Your task to perform on an android device: Show me recent news Image 0: 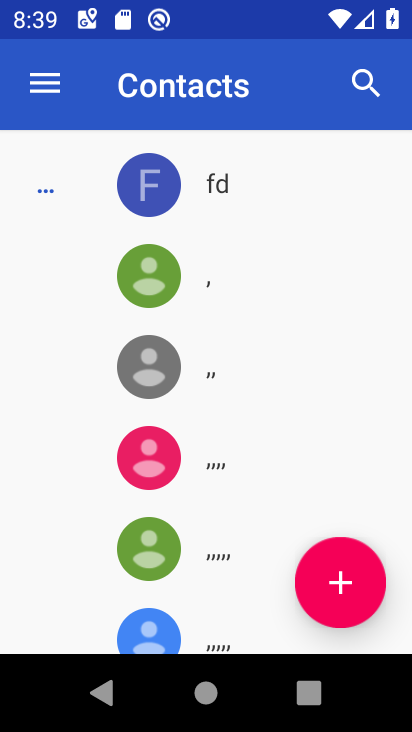
Step 0: press home button
Your task to perform on an android device: Show me recent news Image 1: 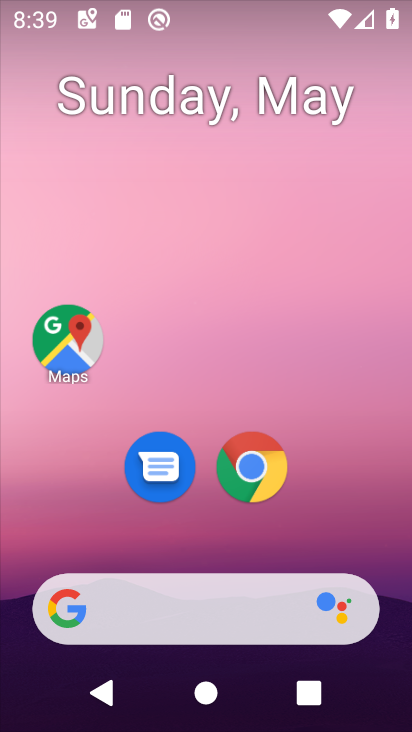
Step 1: drag from (363, 513) to (338, 125)
Your task to perform on an android device: Show me recent news Image 2: 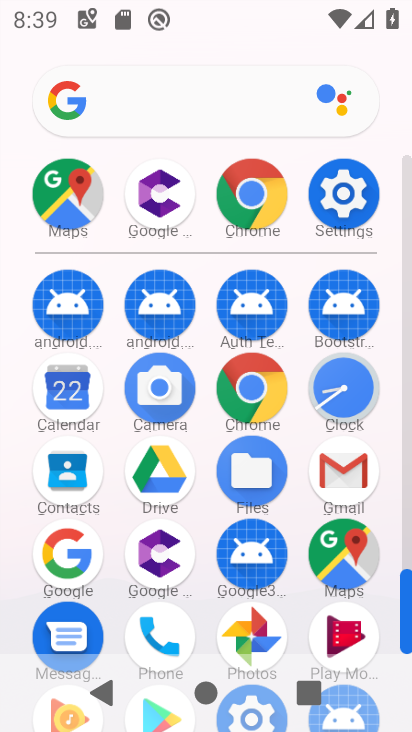
Step 2: click (254, 394)
Your task to perform on an android device: Show me recent news Image 3: 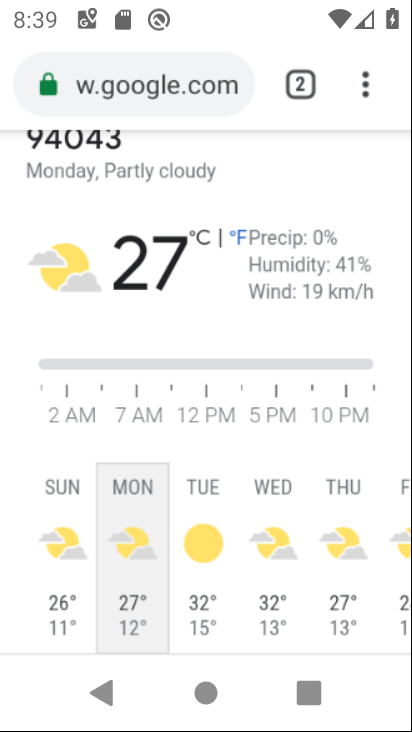
Step 3: click (188, 93)
Your task to perform on an android device: Show me recent news Image 4: 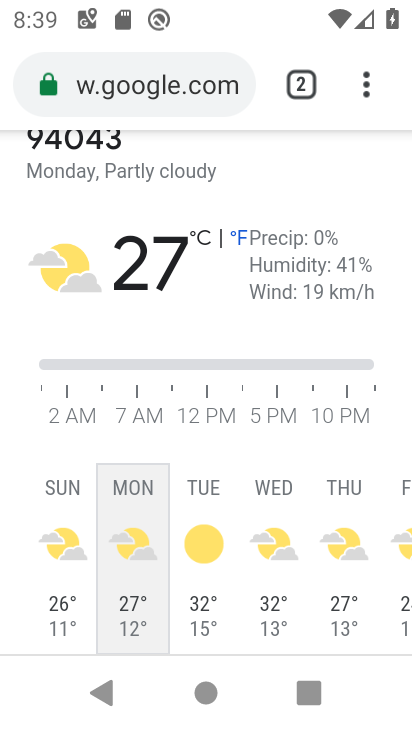
Step 4: click (189, 88)
Your task to perform on an android device: Show me recent news Image 5: 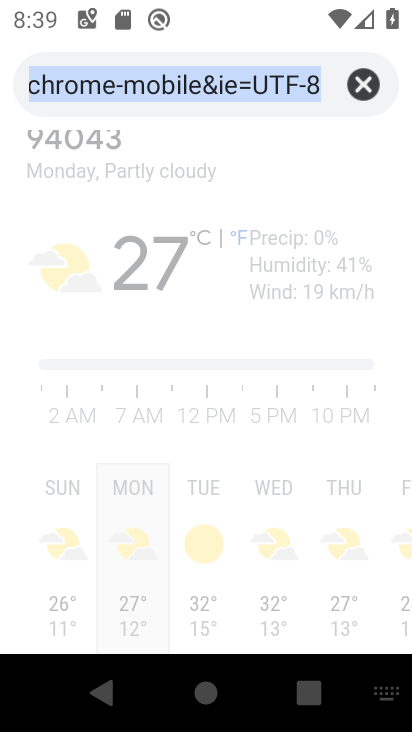
Step 5: click (356, 89)
Your task to perform on an android device: Show me recent news Image 6: 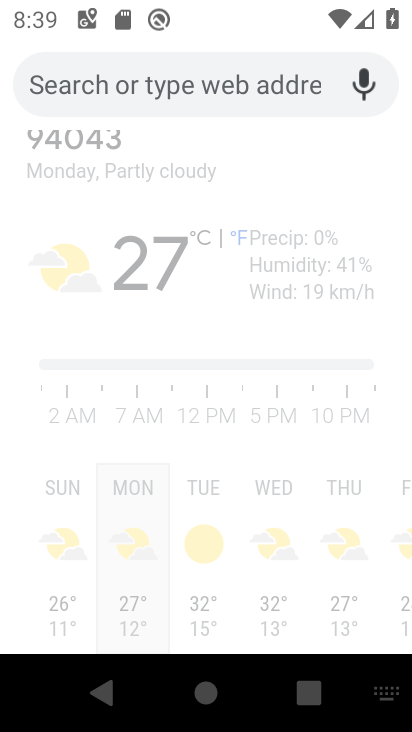
Step 6: click (273, 99)
Your task to perform on an android device: Show me recent news Image 7: 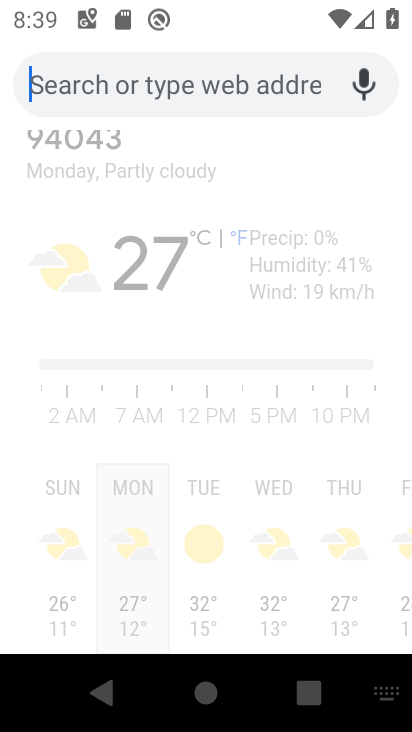
Step 7: type "recent news"
Your task to perform on an android device: Show me recent news Image 8: 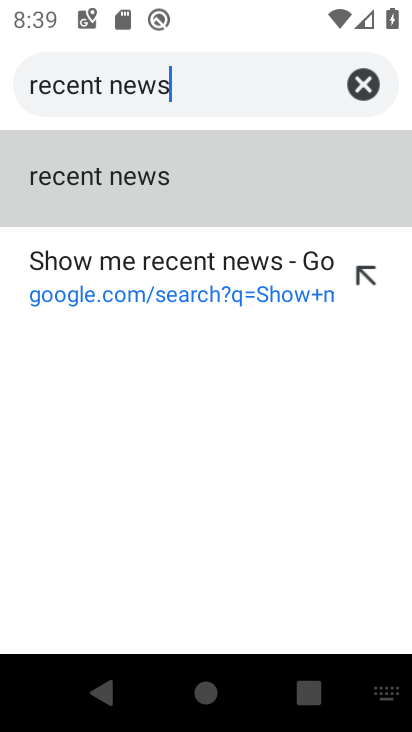
Step 8: click (211, 194)
Your task to perform on an android device: Show me recent news Image 9: 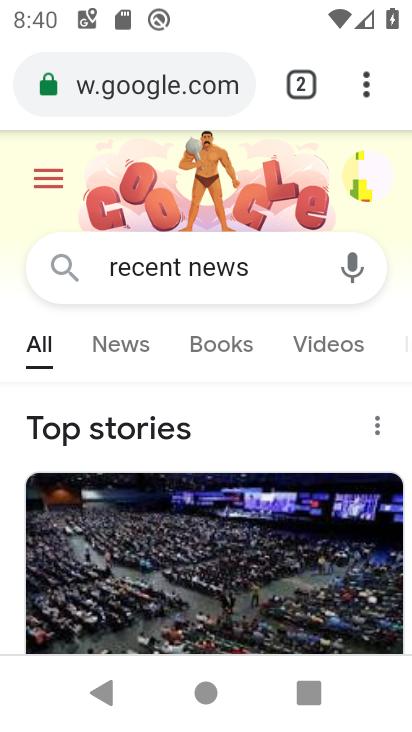
Step 9: task complete